Your task to perform on an android device: turn off notifications settings in the gmail app Image 0: 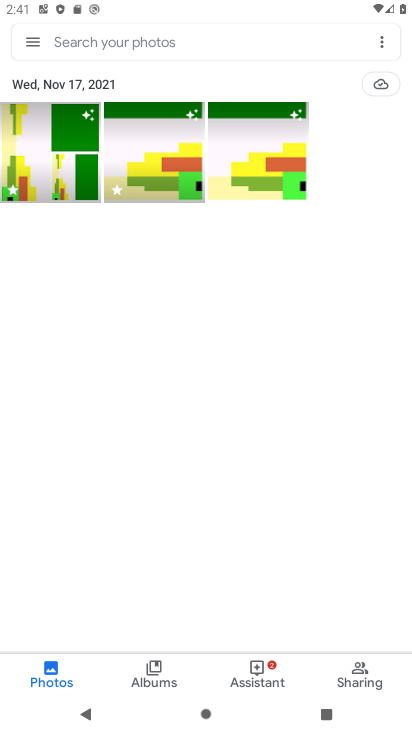
Step 0: press home button
Your task to perform on an android device: turn off notifications settings in the gmail app Image 1: 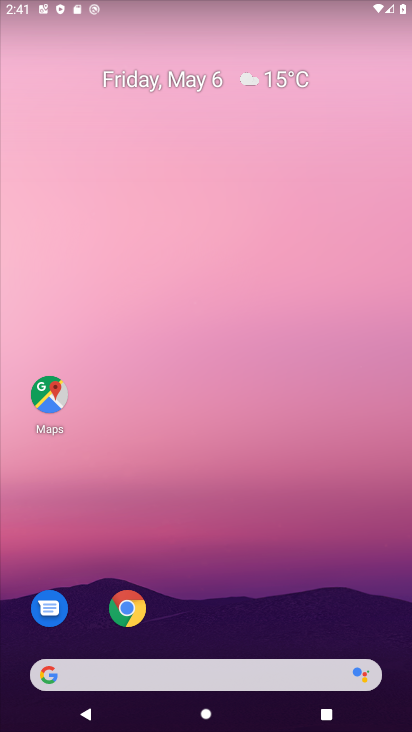
Step 1: drag from (235, 654) to (208, 368)
Your task to perform on an android device: turn off notifications settings in the gmail app Image 2: 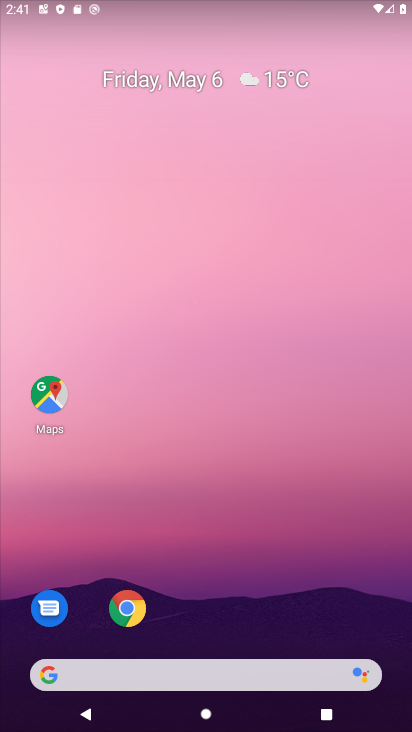
Step 2: drag from (216, 659) to (410, 161)
Your task to perform on an android device: turn off notifications settings in the gmail app Image 3: 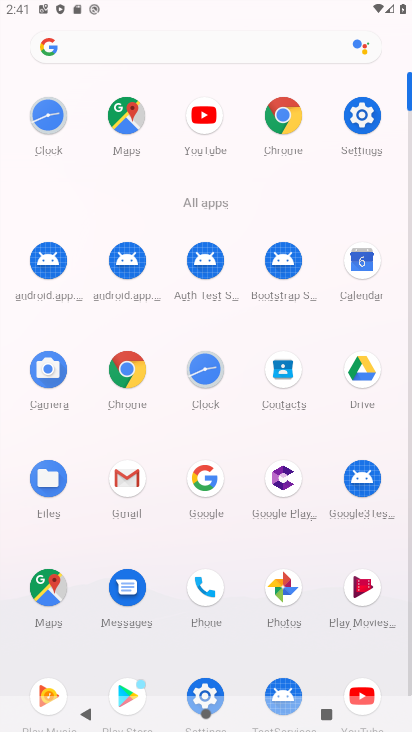
Step 3: click (125, 479)
Your task to perform on an android device: turn off notifications settings in the gmail app Image 4: 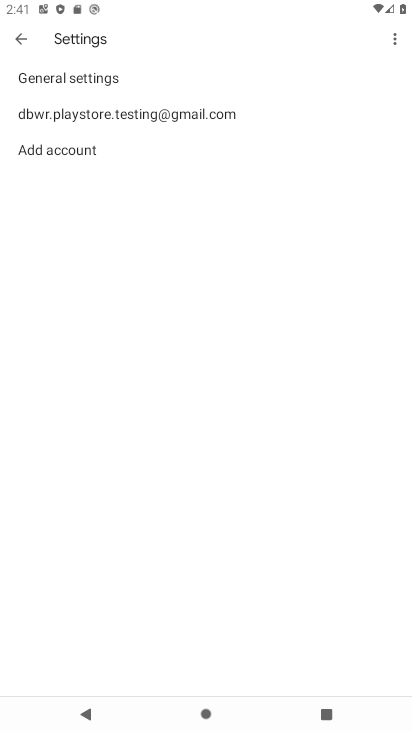
Step 4: click (181, 122)
Your task to perform on an android device: turn off notifications settings in the gmail app Image 5: 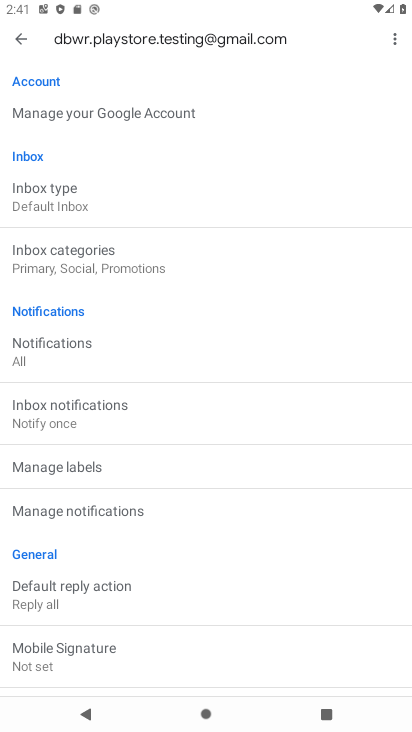
Step 5: click (87, 344)
Your task to perform on an android device: turn off notifications settings in the gmail app Image 6: 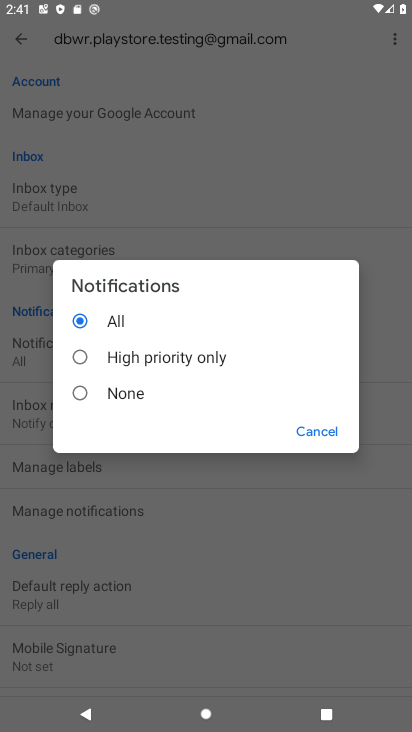
Step 6: click (316, 428)
Your task to perform on an android device: turn off notifications settings in the gmail app Image 7: 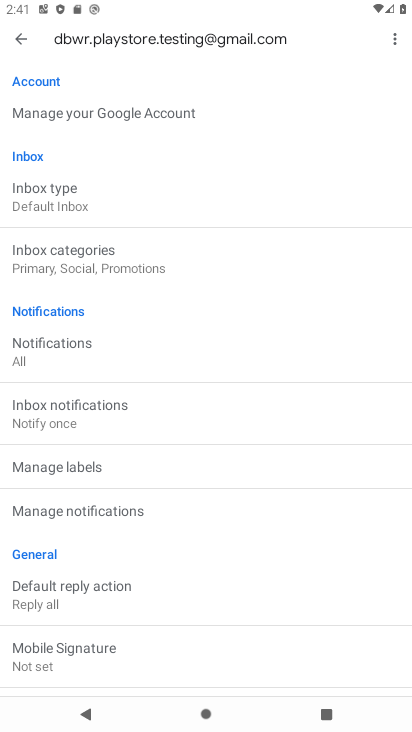
Step 7: click (86, 508)
Your task to perform on an android device: turn off notifications settings in the gmail app Image 8: 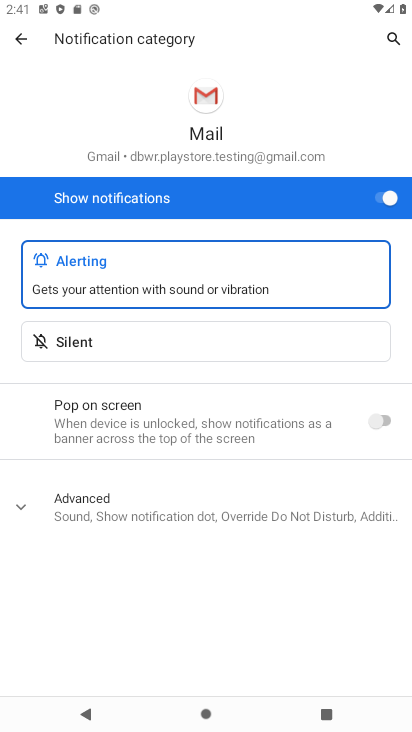
Step 8: click (383, 198)
Your task to perform on an android device: turn off notifications settings in the gmail app Image 9: 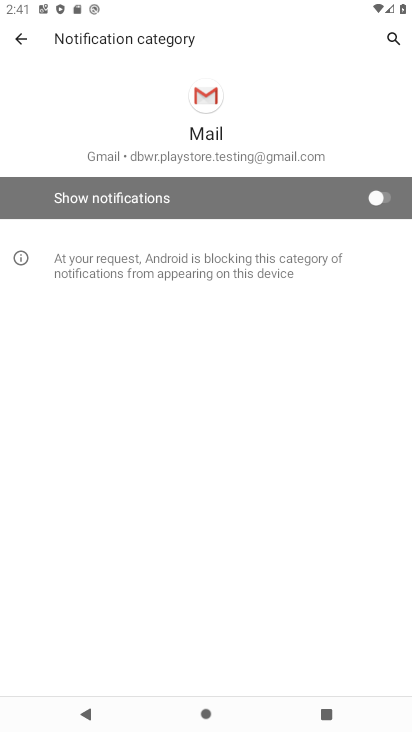
Step 9: task complete